Your task to perform on an android device: check battery use Image 0: 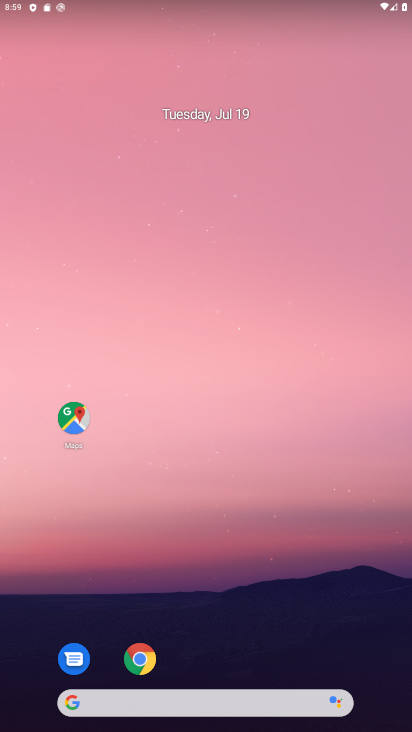
Step 0: drag from (207, 643) to (364, 187)
Your task to perform on an android device: check battery use Image 1: 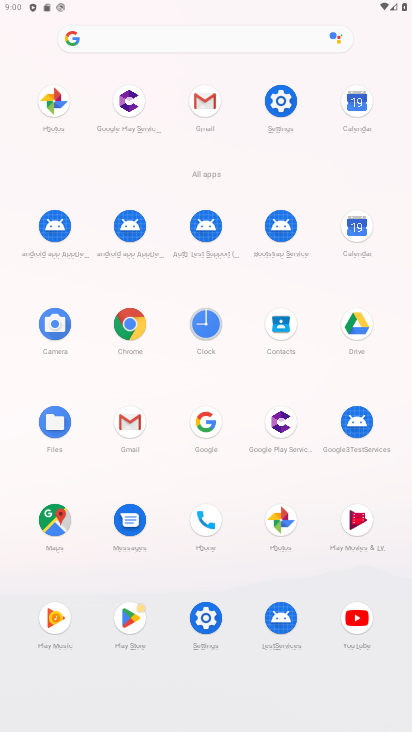
Step 1: drag from (182, 212) to (224, 154)
Your task to perform on an android device: check battery use Image 2: 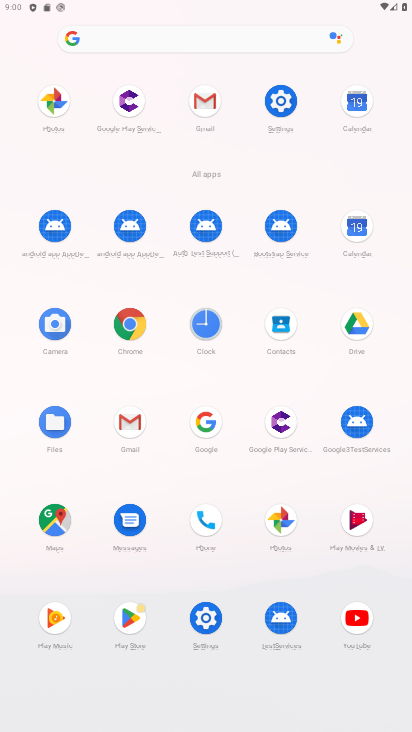
Step 2: click (198, 595)
Your task to perform on an android device: check battery use Image 3: 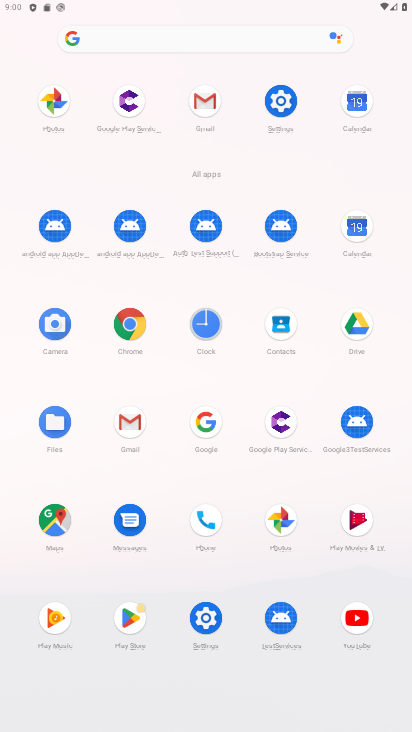
Step 3: click (205, 623)
Your task to perform on an android device: check battery use Image 4: 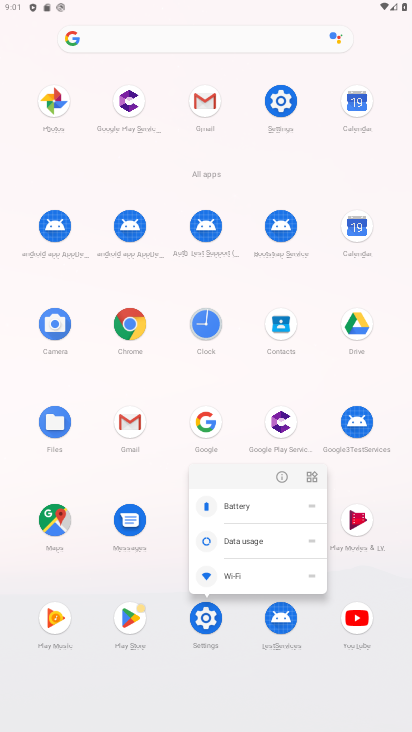
Step 4: click (285, 464)
Your task to perform on an android device: check battery use Image 5: 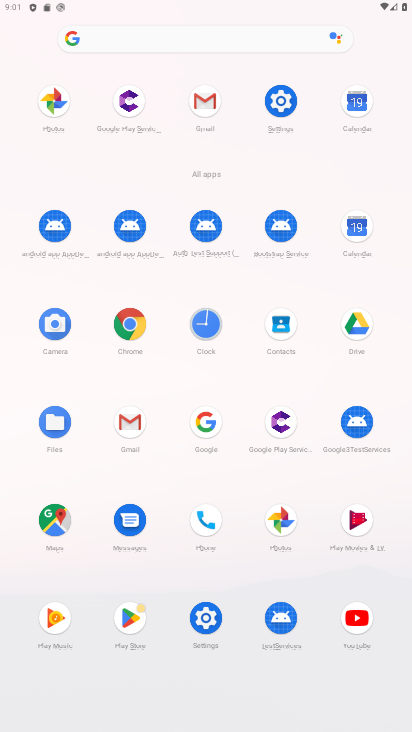
Step 5: click (213, 634)
Your task to perform on an android device: check battery use Image 6: 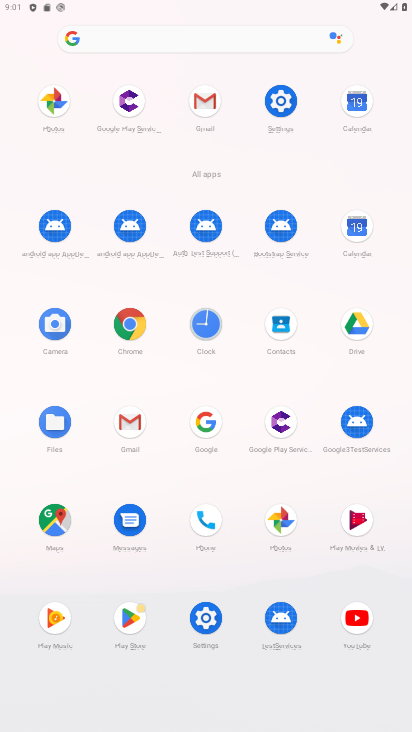
Step 6: click (208, 619)
Your task to perform on an android device: check battery use Image 7: 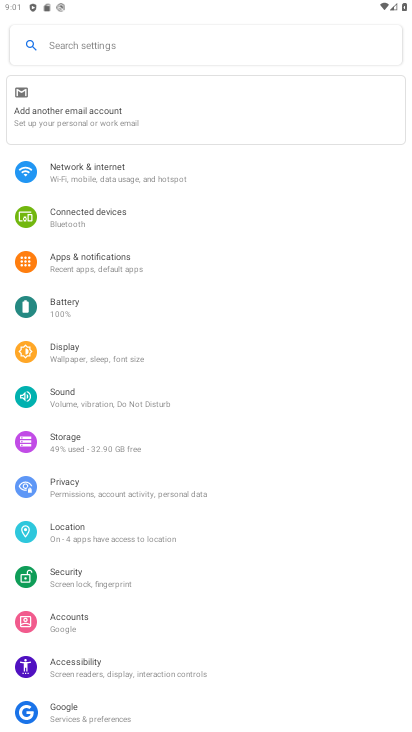
Step 7: click (70, 300)
Your task to perform on an android device: check battery use Image 8: 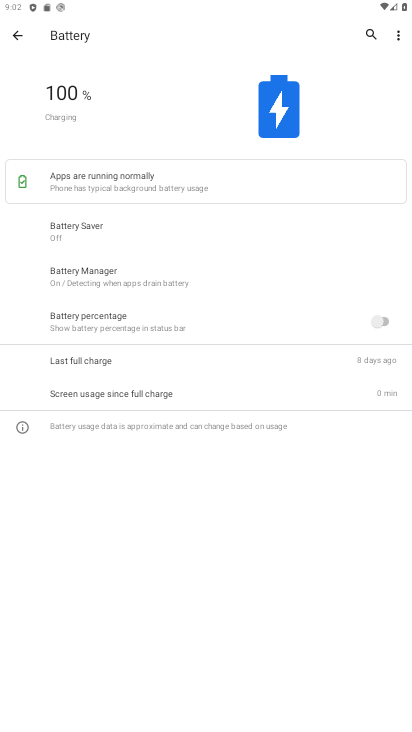
Step 8: drag from (148, 610) to (407, 50)
Your task to perform on an android device: check battery use Image 9: 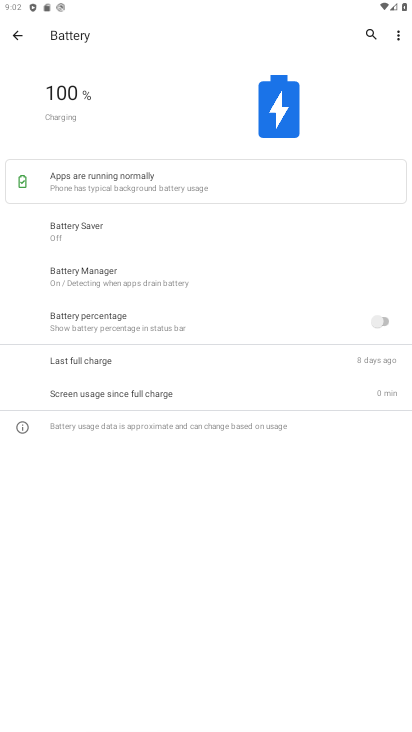
Step 9: click (393, 29)
Your task to perform on an android device: check battery use Image 10: 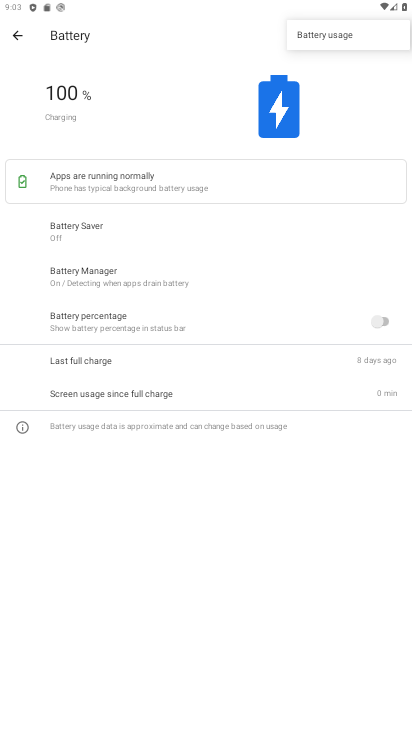
Step 10: click (344, 26)
Your task to perform on an android device: check battery use Image 11: 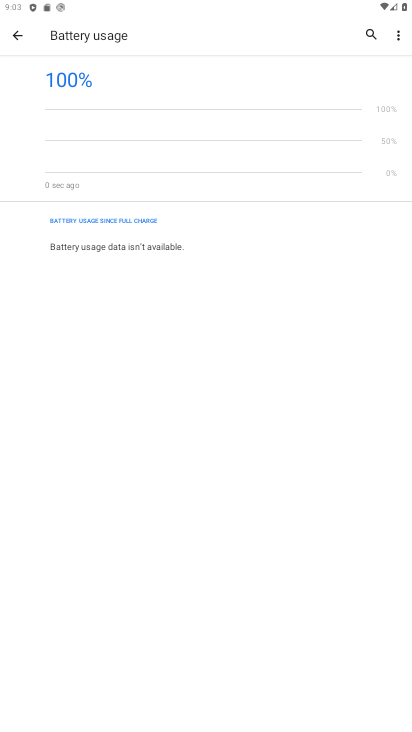
Step 11: task complete